Your task to perform on an android device: What is the news today? Image 0: 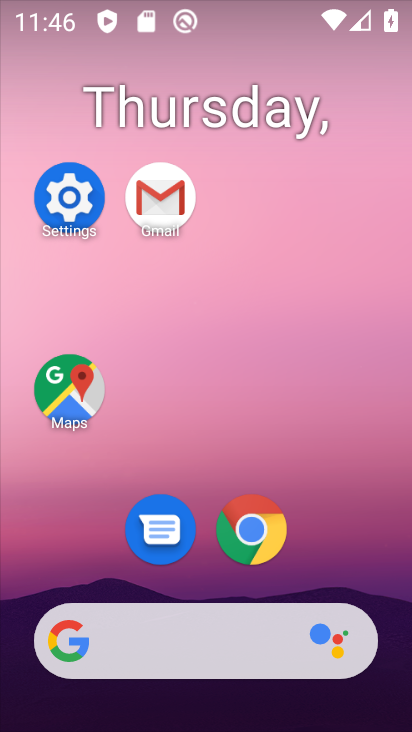
Step 0: drag from (355, 578) to (410, 166)
Your task to perform on an android device: What is the news today? Image 1: 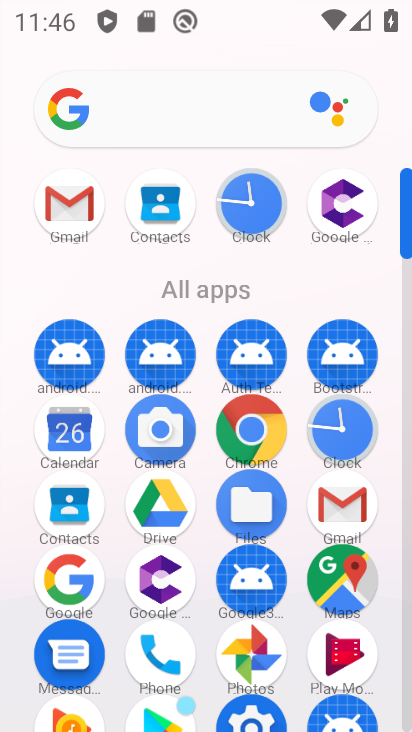
Step 1: drag from (75, 570) to (106, 313)
Your task to perform on an android device: What is the news today? Image 2: 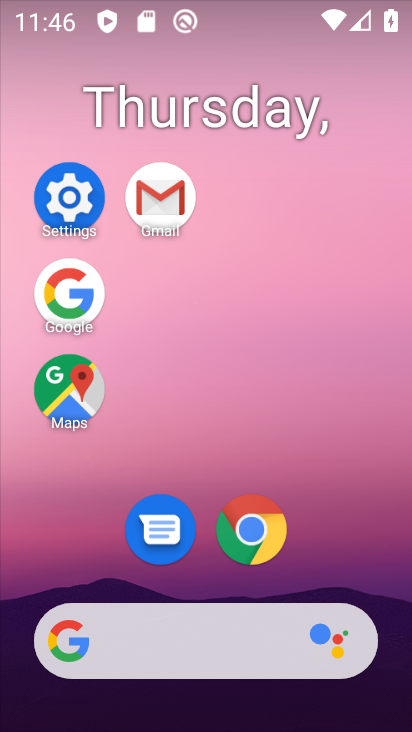
Step 2: click (74, 299)
Your task to perform on an android device: What is the news today? Image 3: 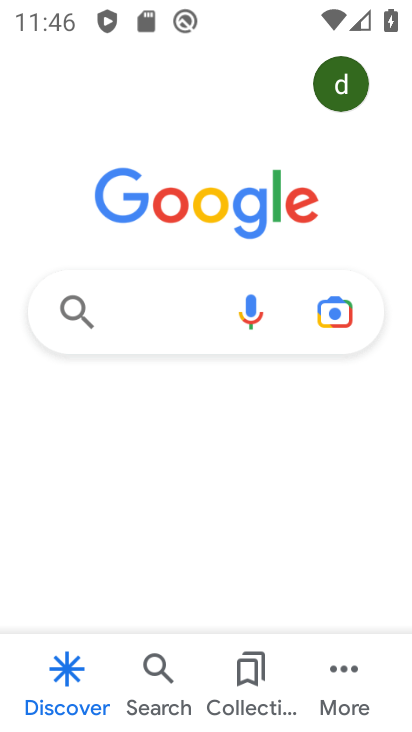
Step 3: drag from (190, 312) to (126, 311)
Your task to perform on an android device: What is the news today? Image 4: 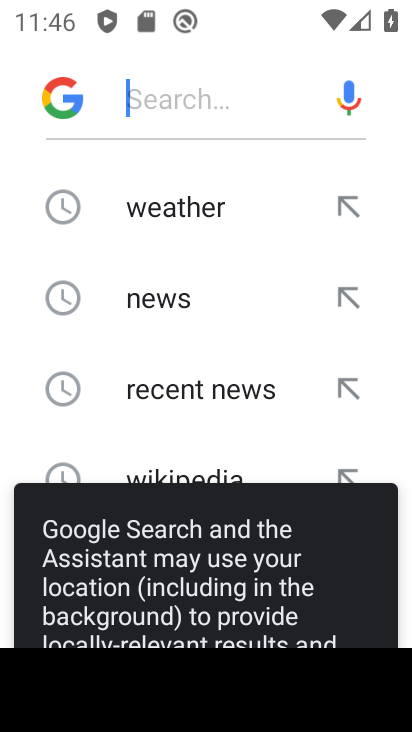
Step 4: click (180, 301)
Your task to perform on an android device: What is the news today? Image 5: 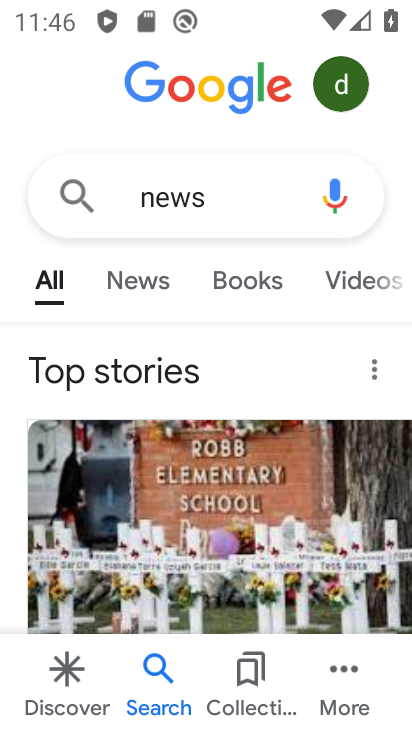
Step 5: task complete